Your task to perform on an android device: change the clock display to show seconds Image 0: 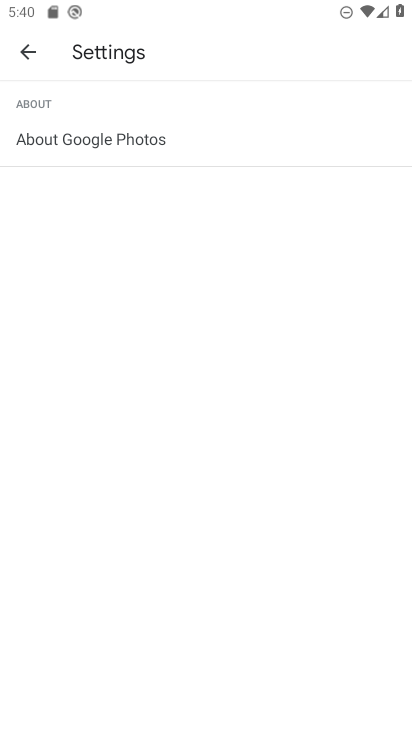
Step 0: press home button
Your task to perform on an android device: change the clock display to show seconds Image 1: 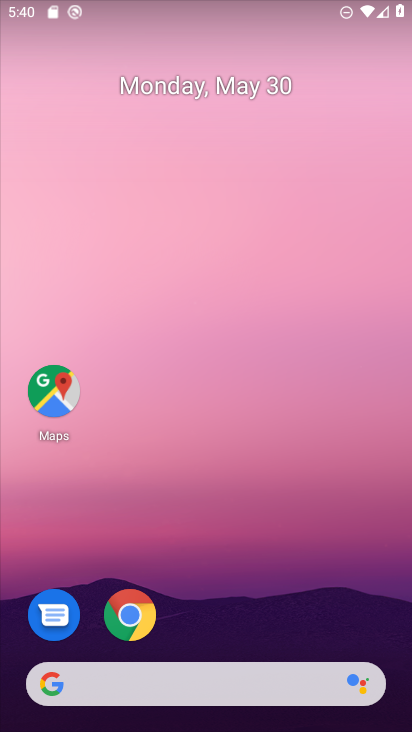
Step 1: drag from (231, 633) to (213, 180)
Your task to perform on an android device: change the clock display to show seconds Image 2: 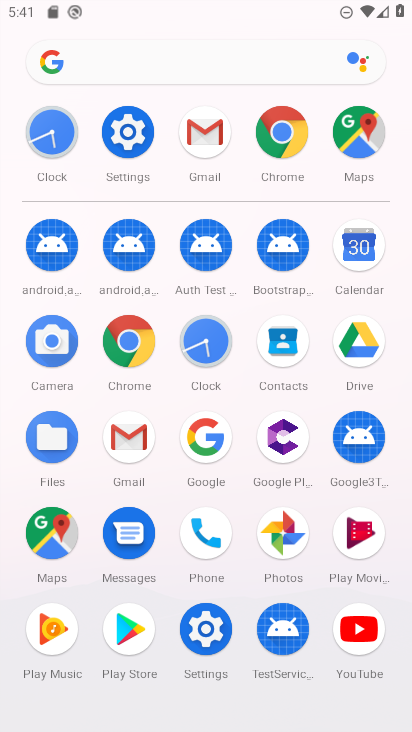
Step 2: click (46, 142)
Your task to perform on an android device: change the clock display to show seconds Image 3: 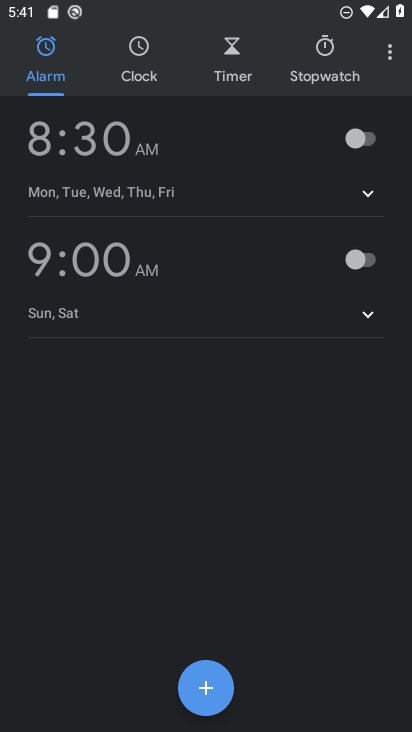
Step 3: click (380, 48)
Your task to perform on an android device: change the clock display to show seconds Image 4: 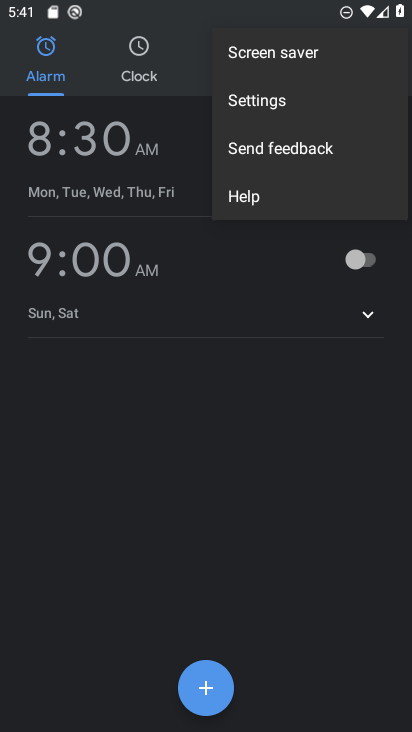
Step 4: click (257, 108)
Your task to perform on an android device: change the clock display to show seconds Image 5: 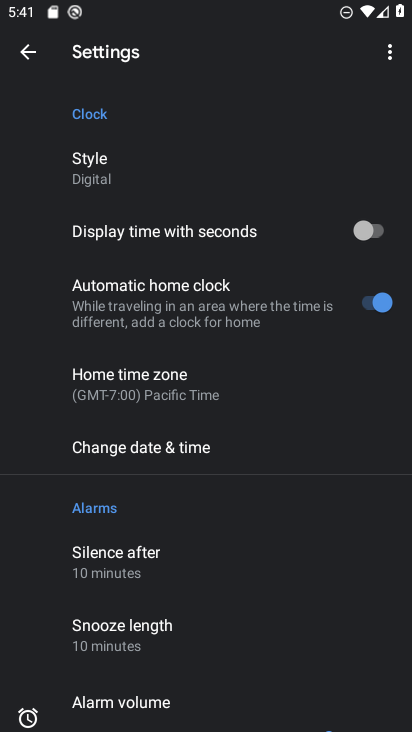
Step 5: click (365, 243)
Your task to perform on an android device: change the clock display to show seconds Image 6: 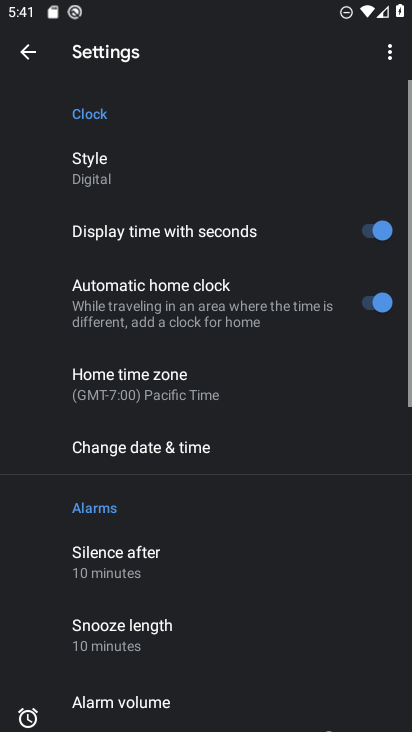
Step 6: task complete